Your task to perform on an android device: clear history in the chrome app Image 0: 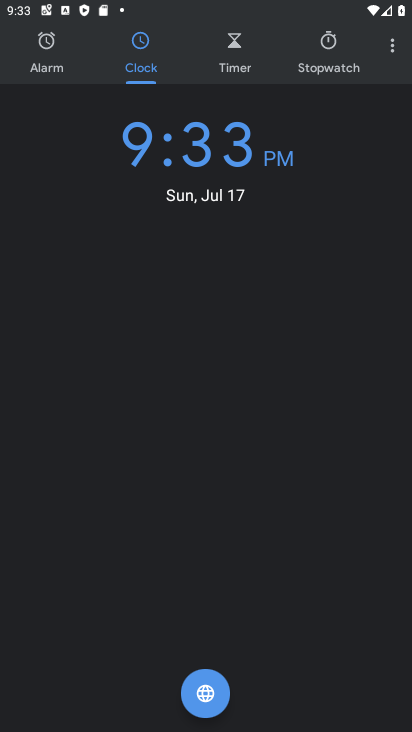
Step 0: press home button
Your task to perform on an android device: clear history in the chrome app Image 1: 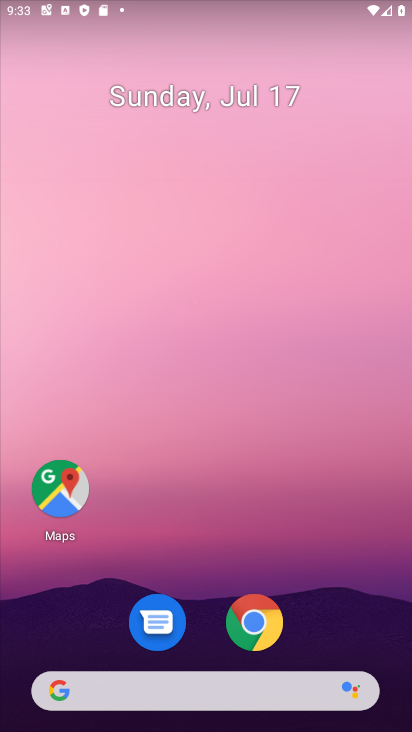
Step 1: click (257, 633)
Your task to perform on an android device: clear history in the chrome app Image 2: 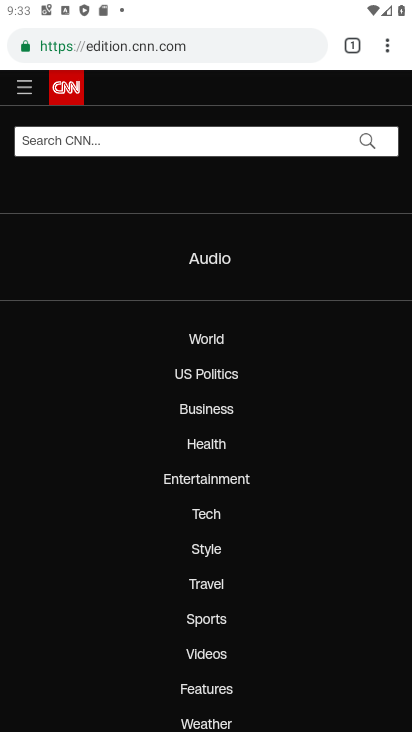
Step 2: click (389, 47)
Your task to perform on an android device: clear history in the chrome app Image 3: 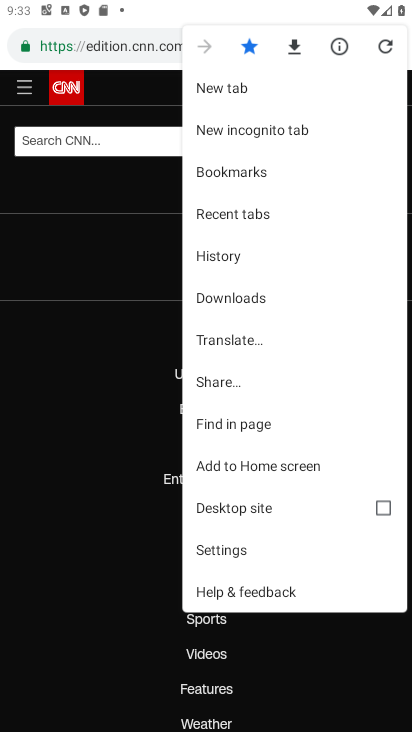
Step 3: click (233, 259)
Your task to perform on an android device: clear history in the chrome app Image 4: 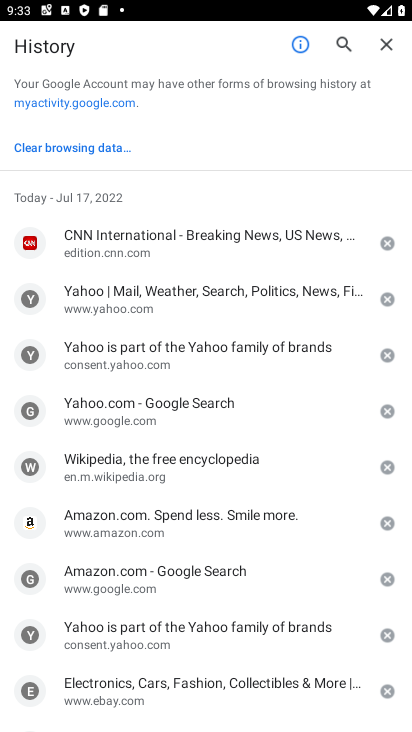
Step 4: click (71, 139)
Your task to perform on an android device: clear history in the chrome app Image 5: 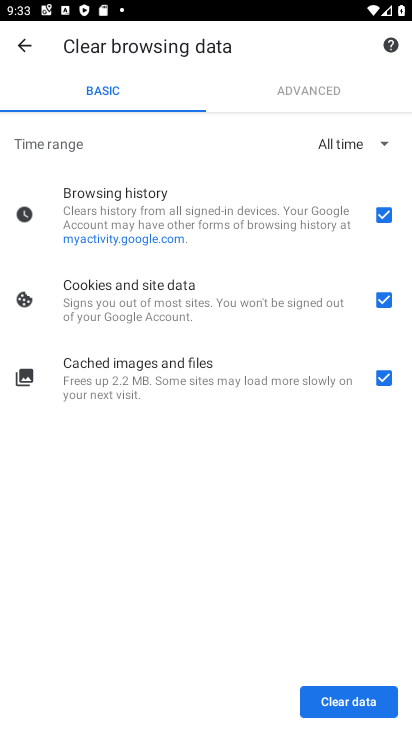
Step 5: click (364, 699)
Your task to perform on an android device: clear history in the chrome app Image 6: 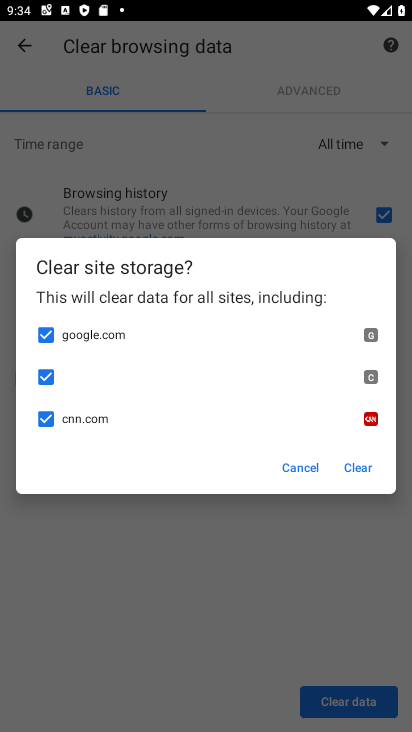
Step 6: click (365, 470)
Your task to perform on an android device: clear history in the chrome app Image 7: 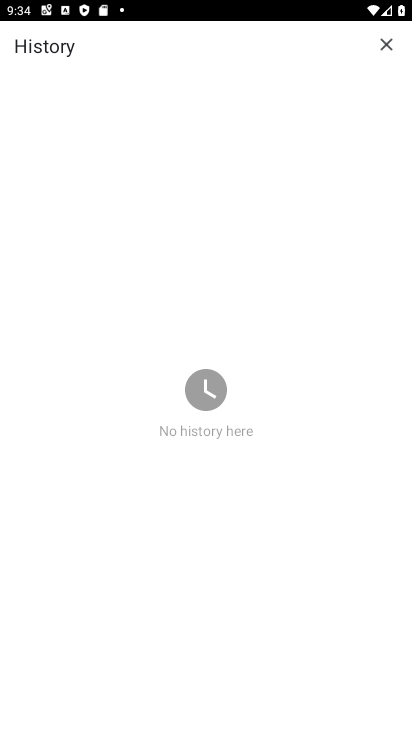
Step 7: task complete